Your task to perform on an android device: turn pop-ups on in chrome Image 0: 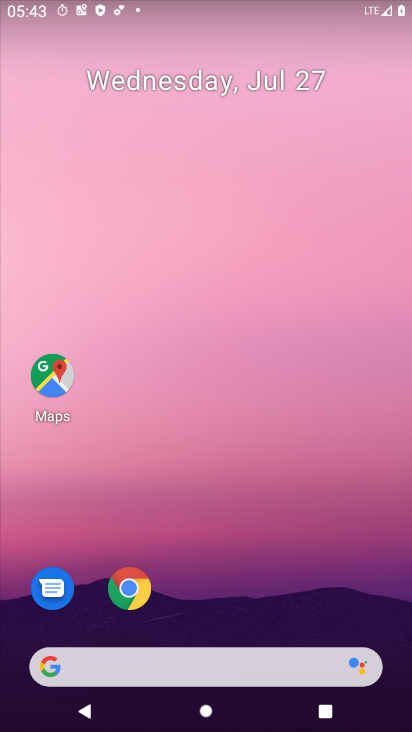
Step 0: drag from (309, 669) to (410, 1)
Your task to perform on an android device: turn pop-ups on in chrome Image 1: 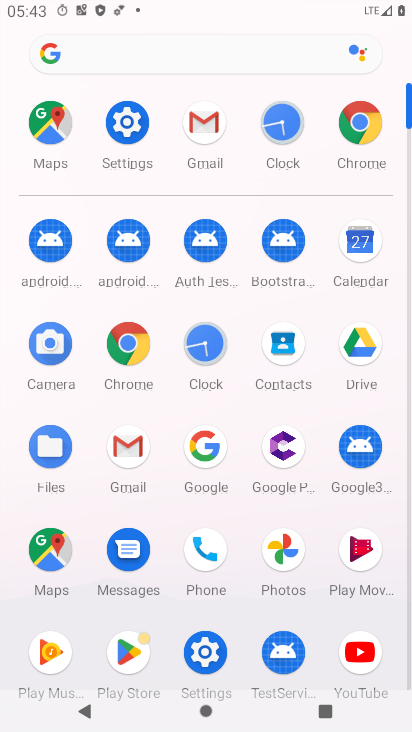
Step 1: click (119, 338)
Your task to perform on an android device: turn pop-ups on in chrome Image 2: 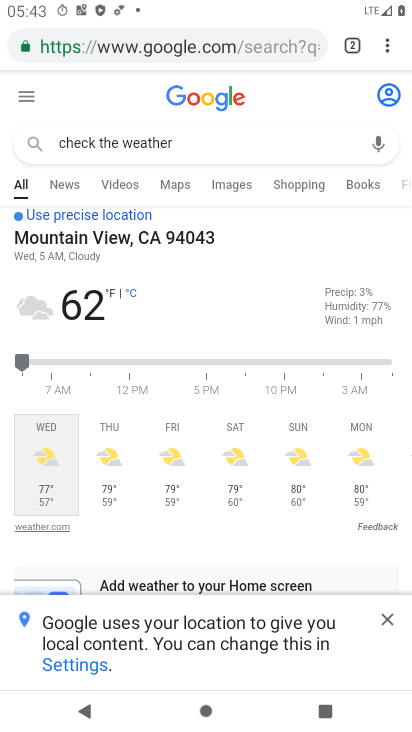
Step 2: click (383, 42)
Your task to perform on an android device: turn pop-ups on in chrome Image 3: 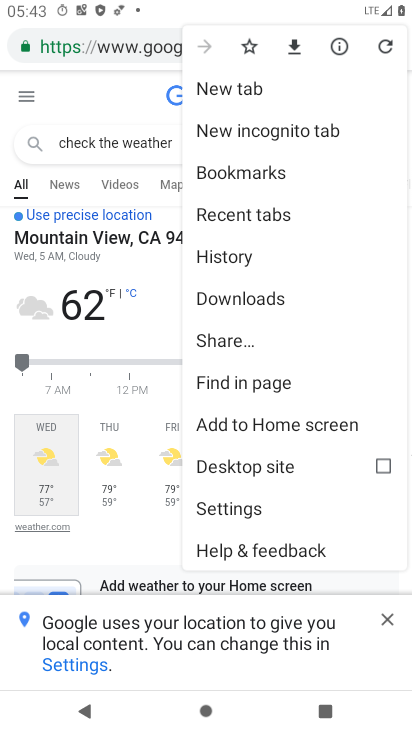
Step 3: click (242, 505)
Your task to perform on an android device: turn pop-ups on in chrome Image 4: 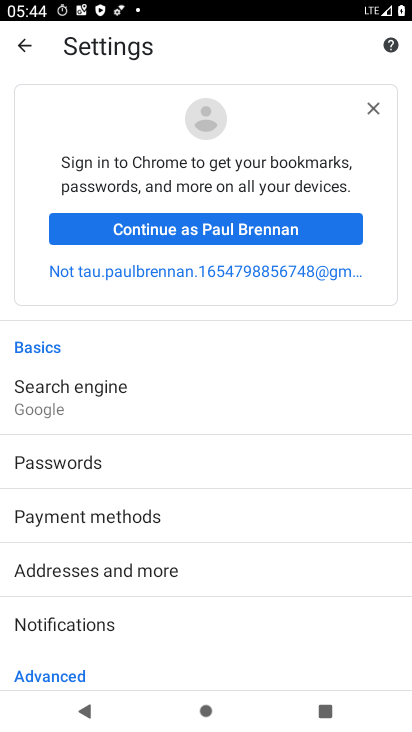
Step 4: drag from (97, 624) to (196, 6)
Your task to perform on an android device: turn pop-ups on in chrome Image 5: 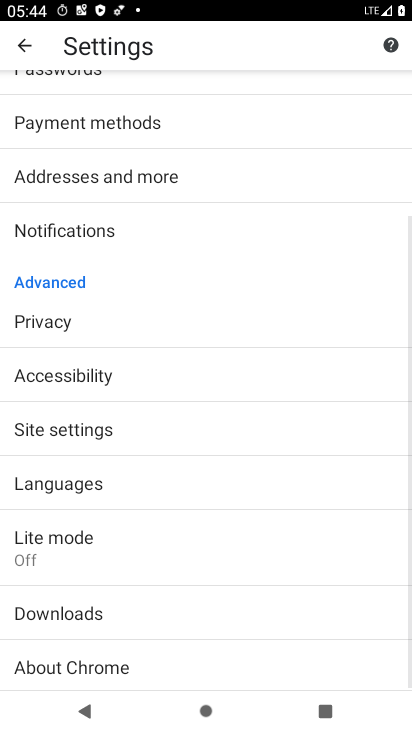
Step 5: click (145, 443)
Your task to perform on an android device: turn pop-ups on in chrome Image 6: 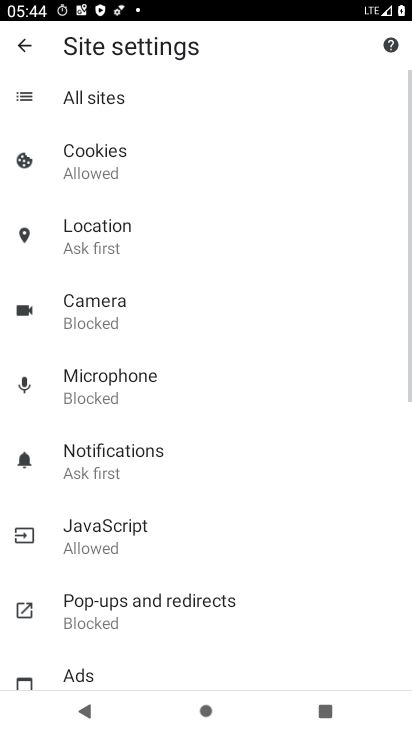
Step 6: click (169, 615)
Your task to perform on an android device: turn pop-ups on in chrome Image 7: 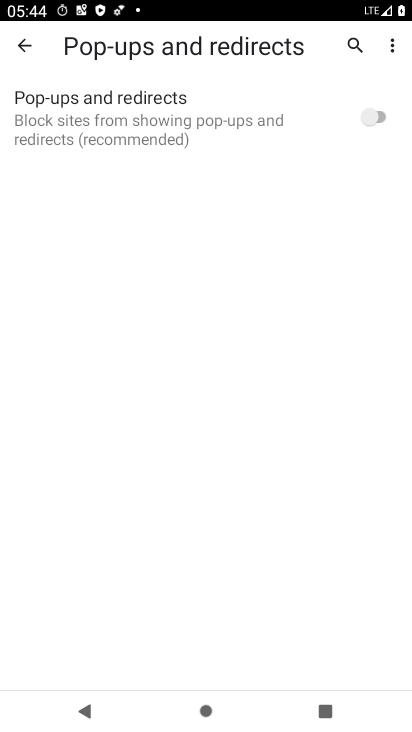
Step 7: click (380, 111)
Your task to perform on an android device: turn pop-ups on in chrome Image 8: 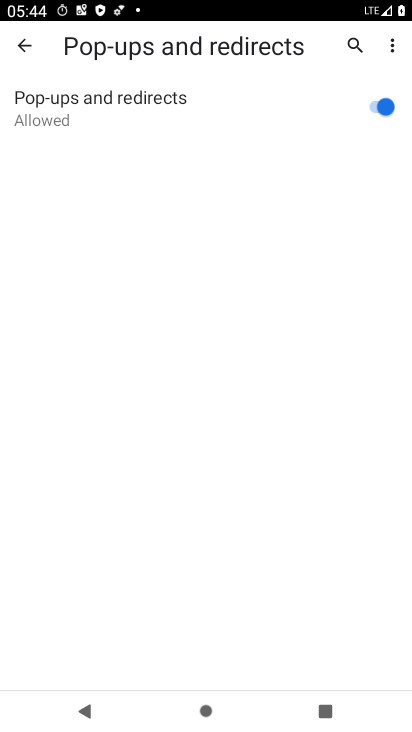
Step 8: task complete